Your task to perform on an android device: Do I have any events this weekend? Image 0: 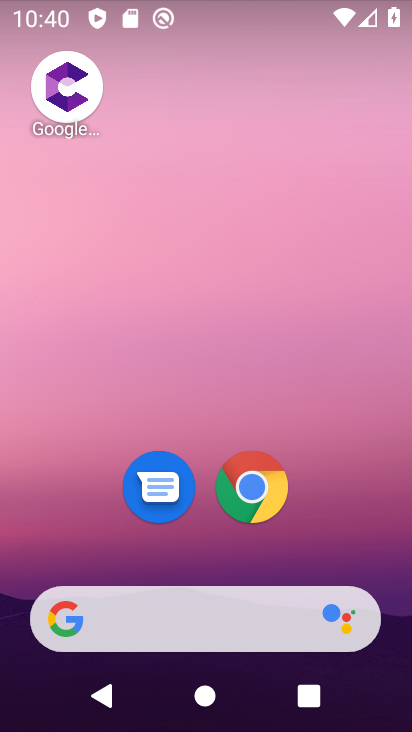
Step 0: drag from (193, 617) to (150, 84)
Your task to perform on an android device: Do I have any events this weekend? Image 1: 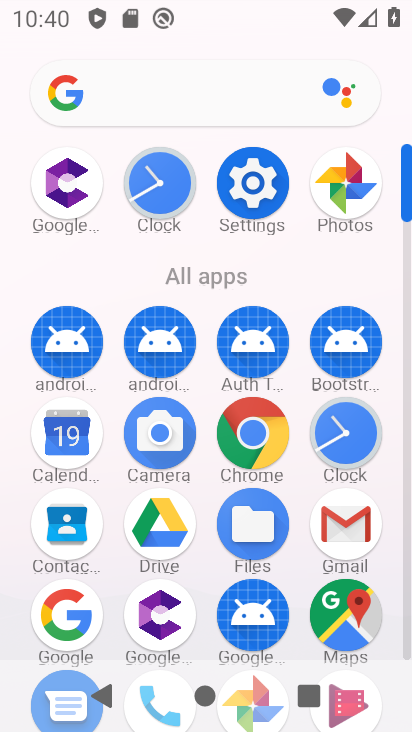
Step 1: click (61, 458)
Your task to perform on an android device: Do I have any events this weekend? Image 2: 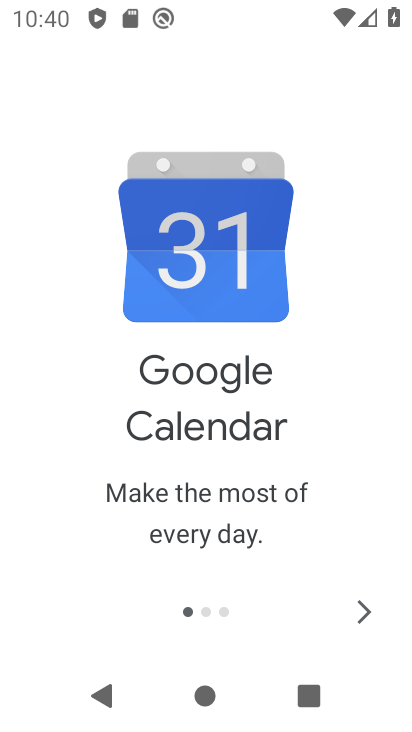
Step 2: click (365, 615)
Your task to perform on an android device: Do I have any events this weekend? Image 3: 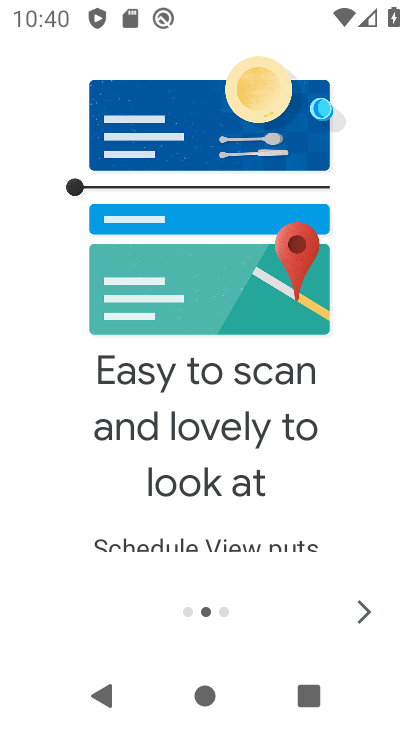
Step 3: click (365, 615)
Your task to perform on an android device: Do I have any events this weekend? Image 4: 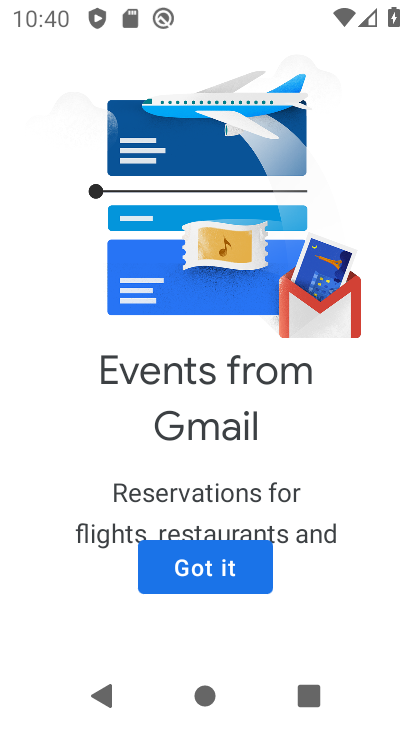
Step 4: click (243, 563)
Your task to perform on an android device: Do I have any events this weekend? Image 5: 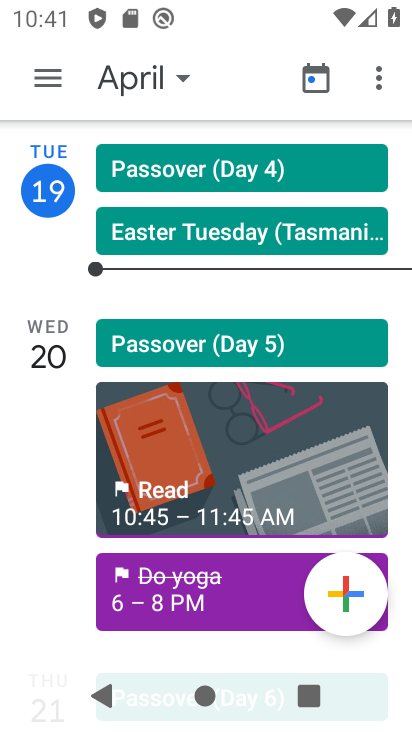
Step 5: click (53, 75)
Your task to perform on an android device: Do I have any events this weekend? Image 6: 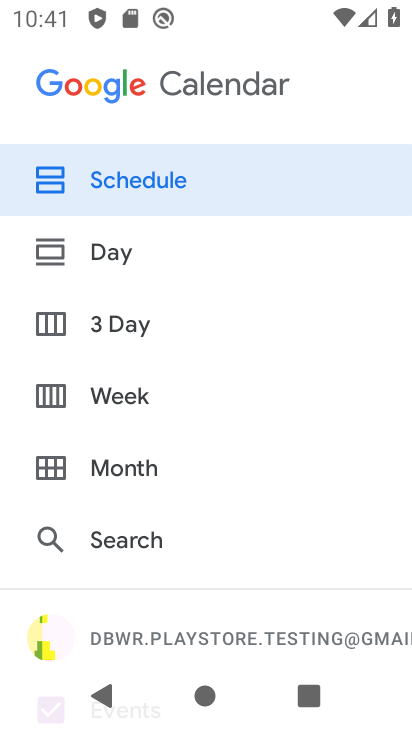
Step 6: click (115, 396)
Your task to perform on an android device: Do I have any events this weekend? Image 7: 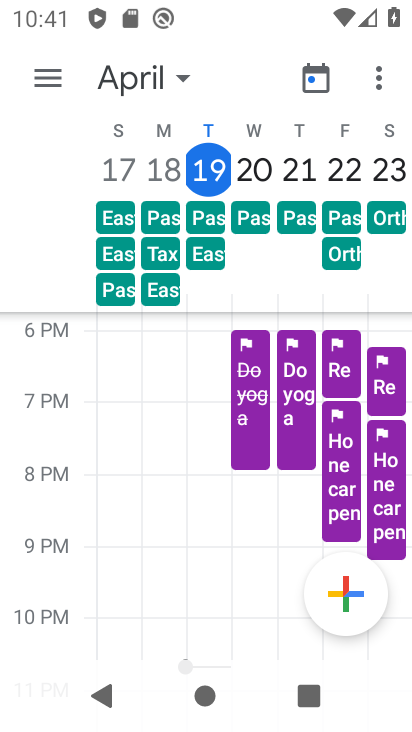
Step 7: task complete